Your task to perform on an android device: delete browsing data in the chrome app Image 0: 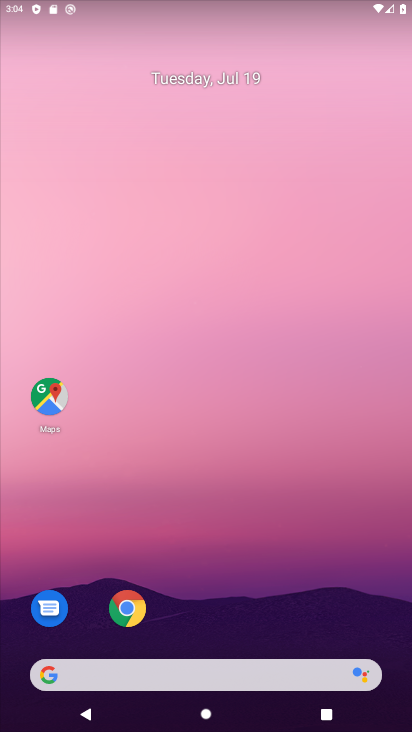
Step 0: drag from (232, 571) to (244, 307)
Your task to perform on an android device: delete browsing data in the chrome app Image 1: 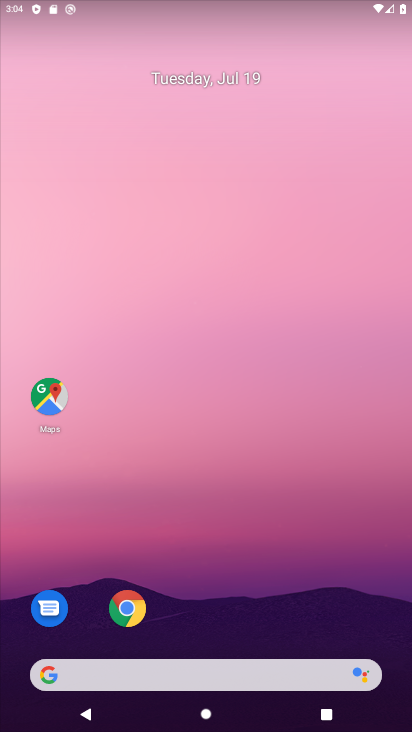
Step 1: click (131, 616)
Your task to perform on an android device: delete browsing data in the chrome app Image 2: 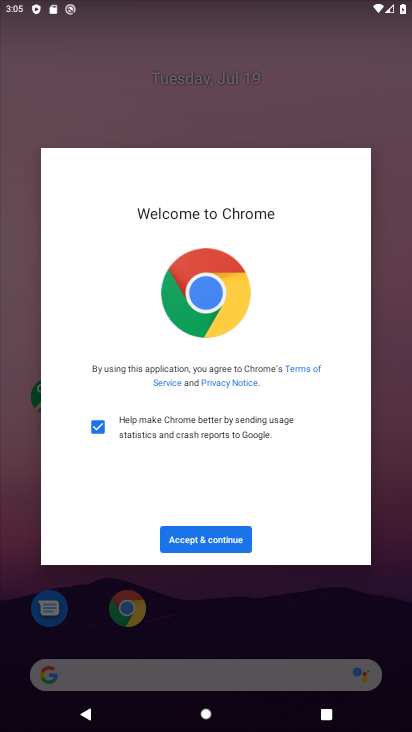
Step 2: click (210, 543)
Your task to perform on an android device: delete browsing data in the chrome app Image 3: 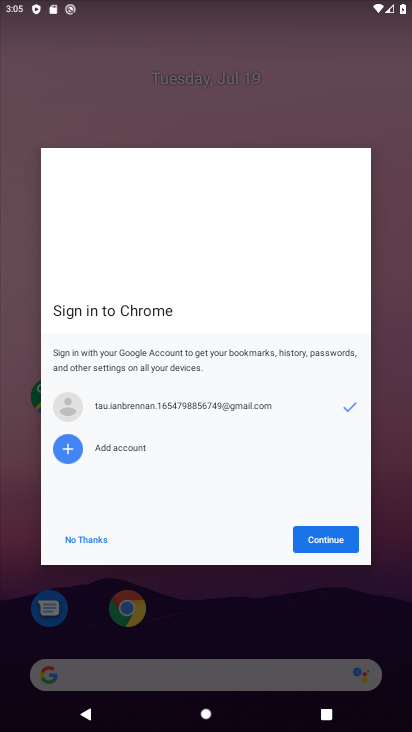
Step 3: click (322, 536)
Your task to perform on an android device: delete browsing data in the chrome app Image 4: 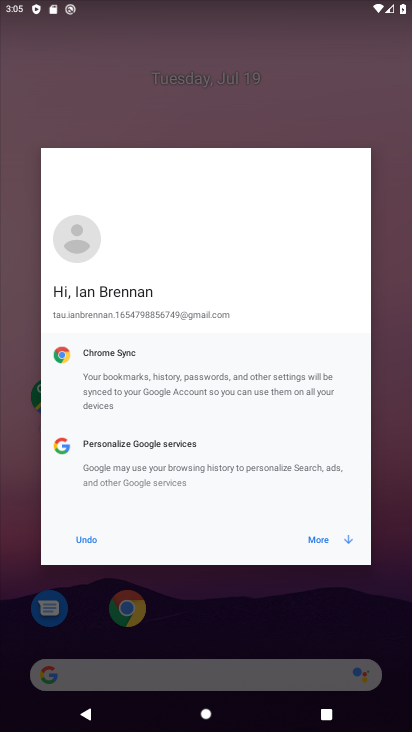
Step 4: click (314, 540)
Your task to perform on an android device: delete browsing data in the chrome app Image 5: 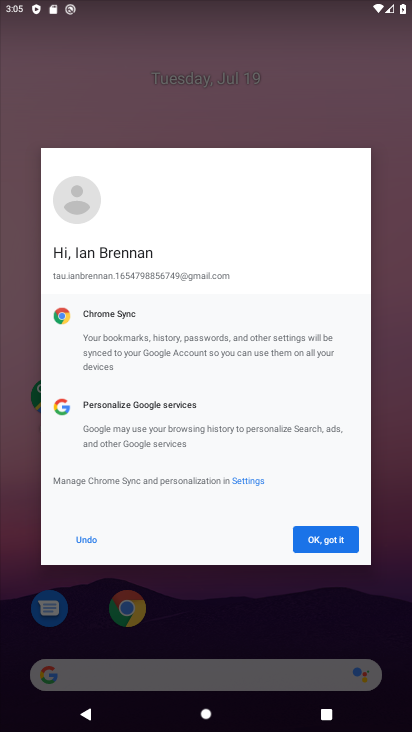
Step 5: click (314, 540)
Your task to perform on an android device: delete browsing data in the chrome app Image 6: 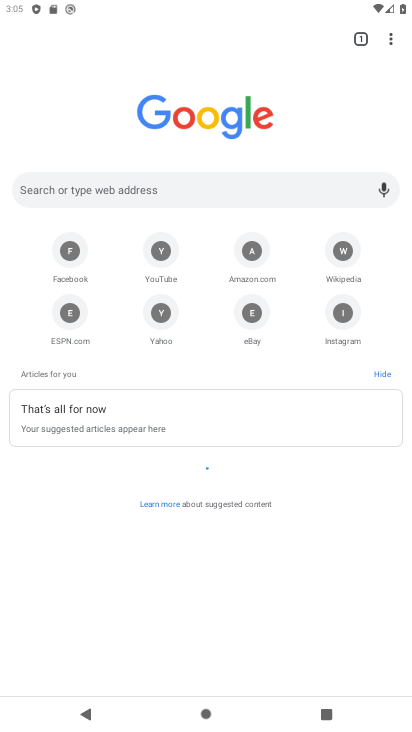
Step 6: click (392, 42)
Your task to perform on an android device: delete browsing data in the chrome app Image 7: 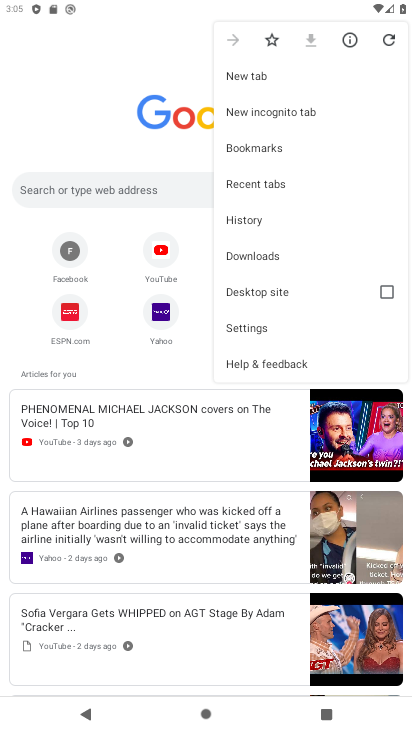
Step 7: click (247, 327)
Your task to perform on an android device: delete browsing data in the chrome app Image 8: 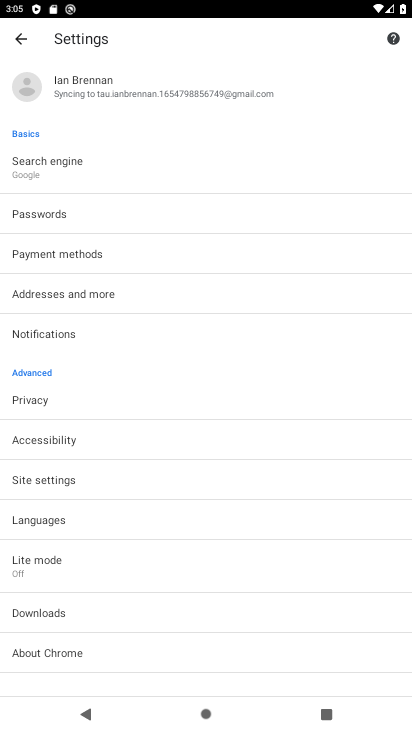
Step 8: drag from (238, 345) to (238, 258)
Your task to perform on an android device: delete browsing data in the chrome app Image 9: 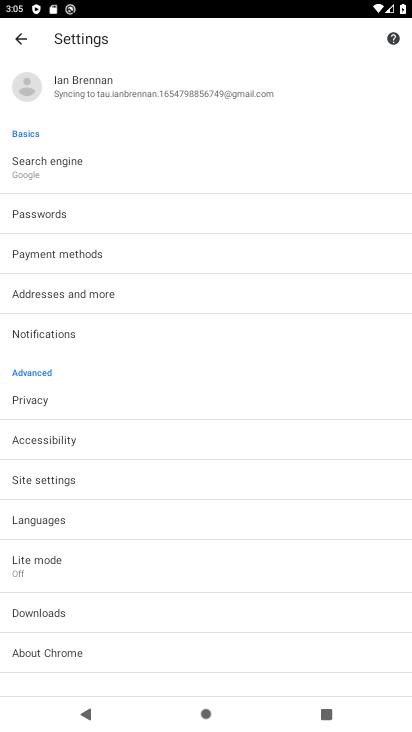
Step 9: drag from (180, 391) to (204, 277)
Your task to perform on an android device: delete browsing data in the chrome app Image 10: 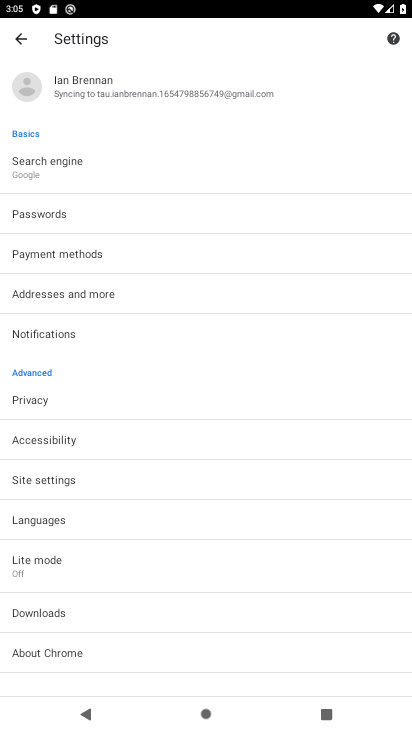
Step 10: click (53, 399)
Your task to perform on an android device: delete browsing data in the chrome app Image 11: 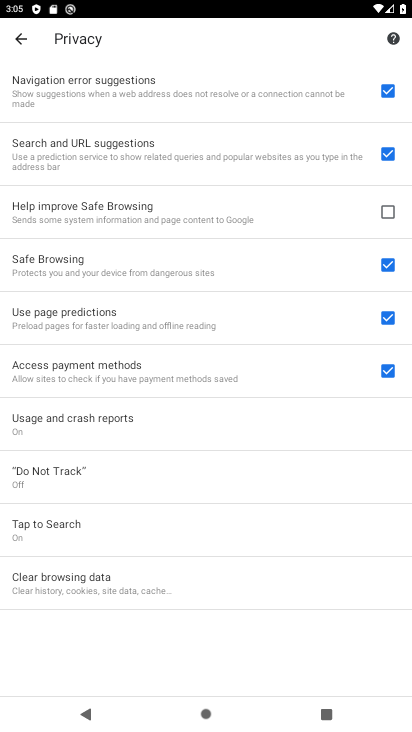
Step 11: click (75, 591)
Your task to perform on an android device: delete browsing data in the chrome app Image 12: 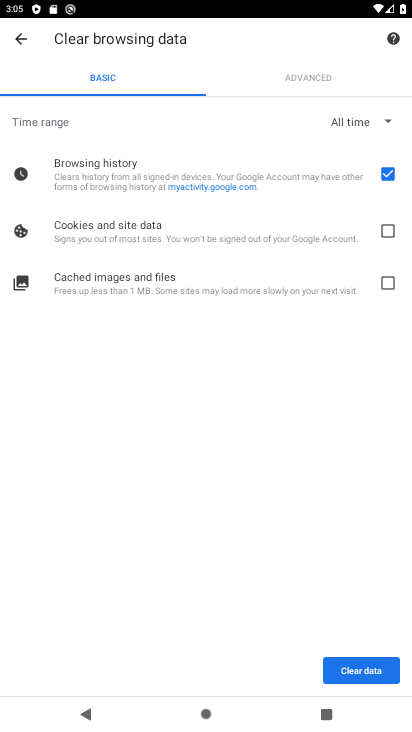
Step 12: click (344, 668)
Your task to perform on an android device: delete browsing data in the chrome app Image 13: 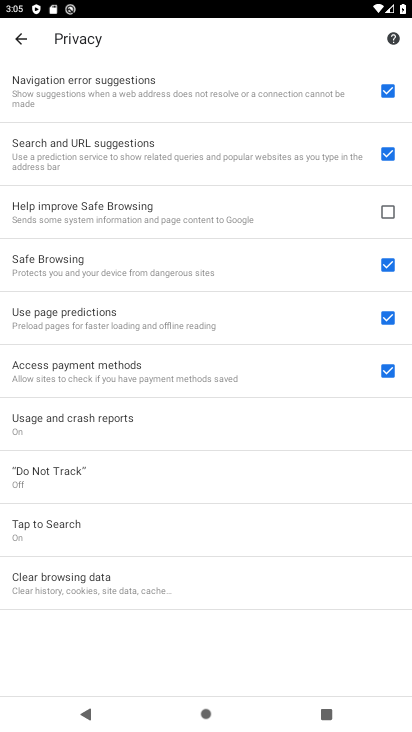
Step 13: task complete